Your task to perform on an android device: search for starred emails in the gmail app Image 0: 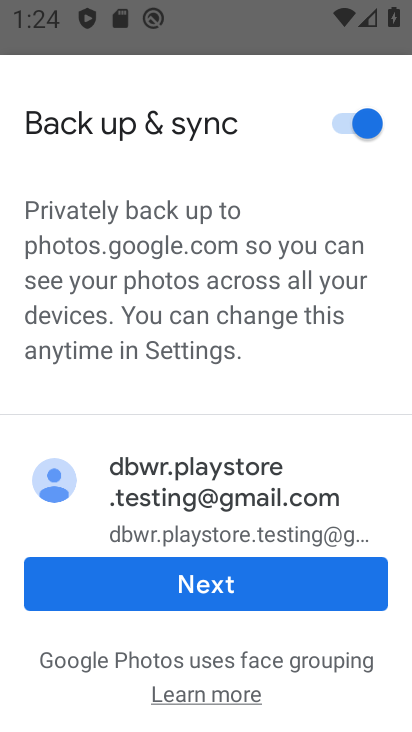
Step 0: press back button
Your task to perform on an android device: search for starred emails in the gmail app Image 1: 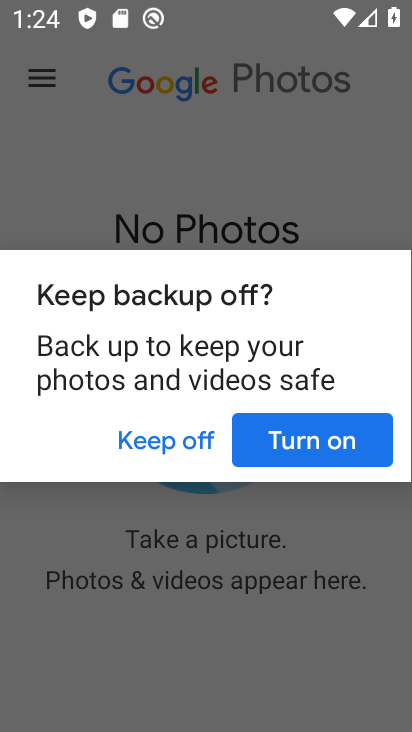
Step 1: press home button
Your task to perform on an android device: search for starred emails in the gmail app Image 2: 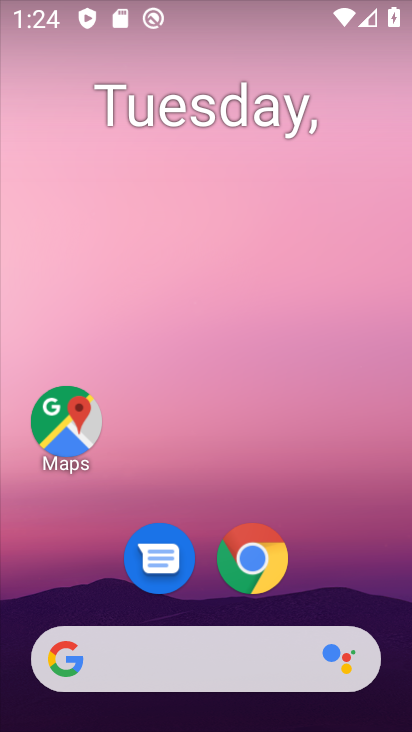
Step 2: drag from (146, 594) to (275, 16)
Your task to perform on an android device: search for starred emails in the gmail app Image 3: 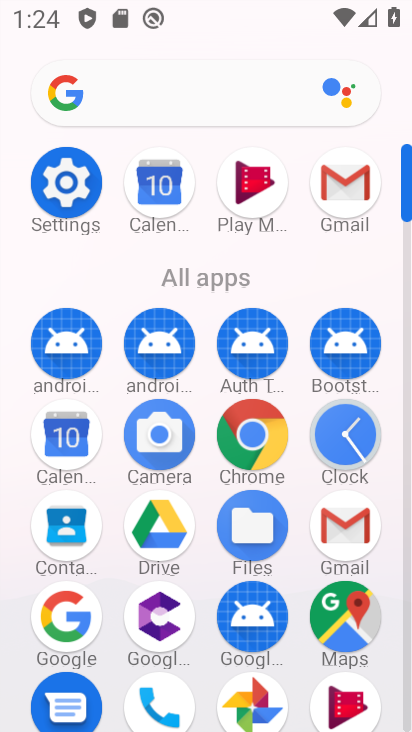
Step 3: click (344, 175)
Your task to perform on an android device: search for starred emails in the gmail app Image 4: 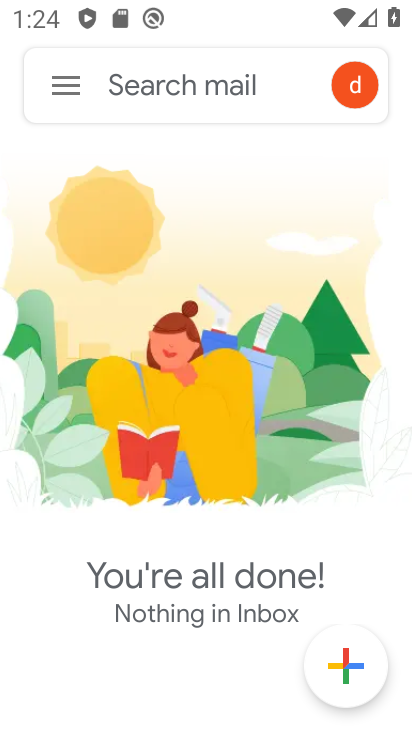
Step 4: click (55, 77)
Your task to perform on an android device: search for starred emails in the gmail app Image 5: 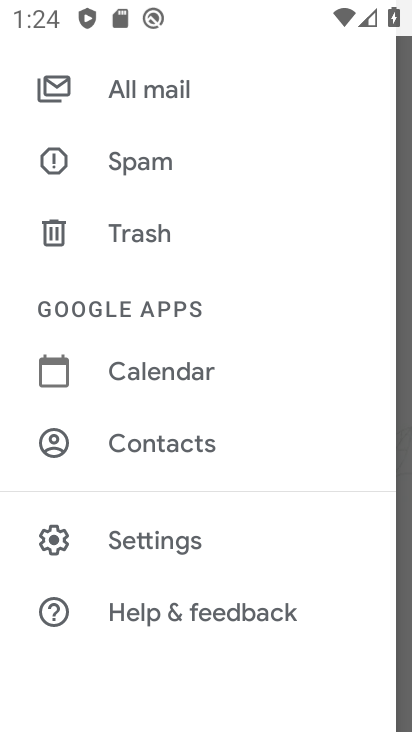
Step 5: drag from (202, 130) to (178, 673)
Your task to perform on an android device: search for starred emails in the gmail app Image 6: 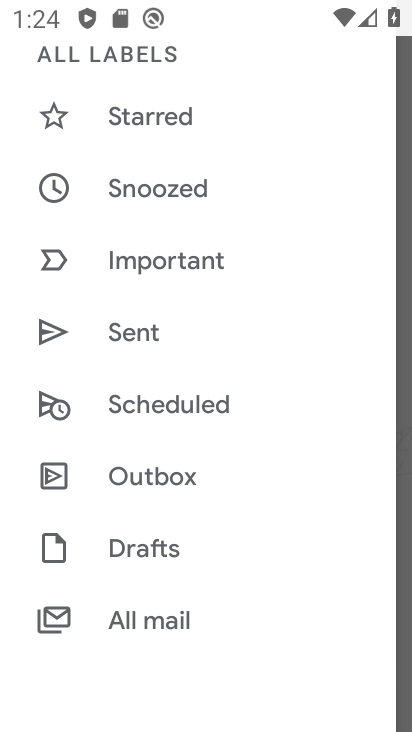
Step 6: click (140, 110)
Your task to perform on an android device: search for starred emails in the gmail app Image 7: 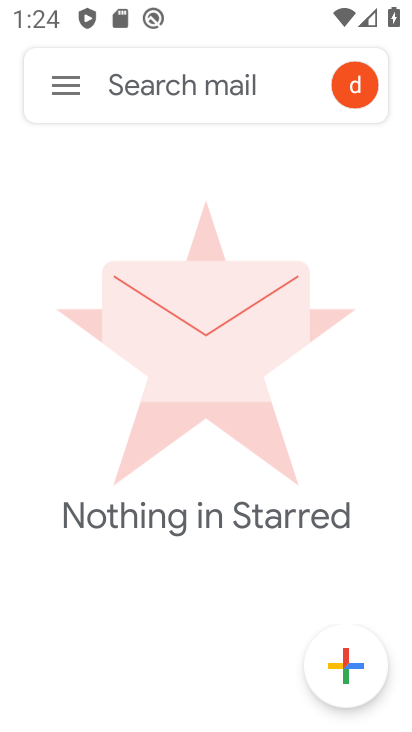
Step 7: task complete